Your task to perform on an android device: snooze an email in the gmail app Image 0: 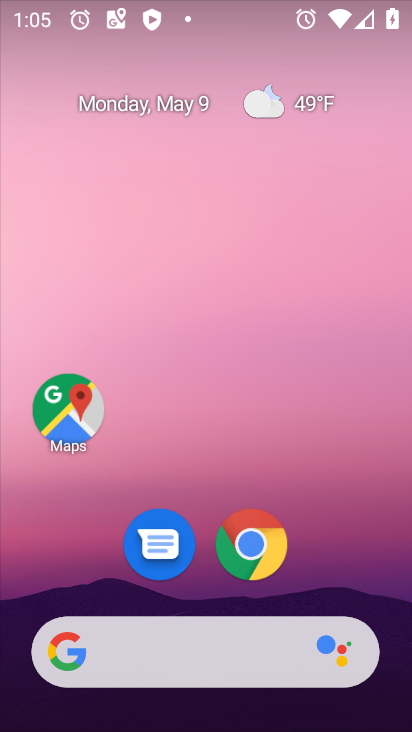
Step 0: drag from (208, 664) to (186, 251)
Your task to perform on an android device: snooze an email in the gmail app Image 1: 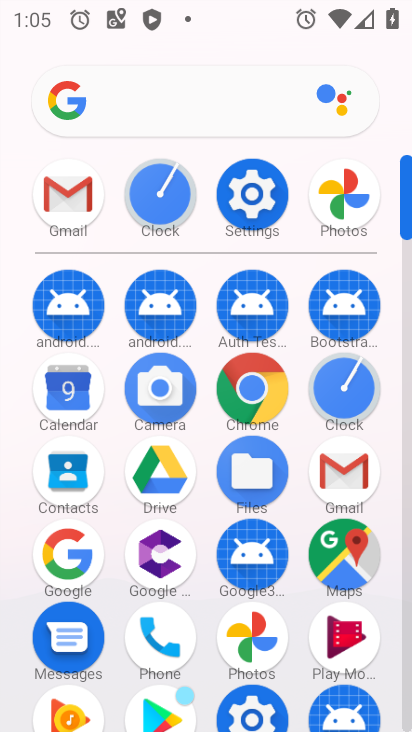
Step 1: click (68, 174)
Your task to perform on an android device: snooze an email in the gmail app Image 2: 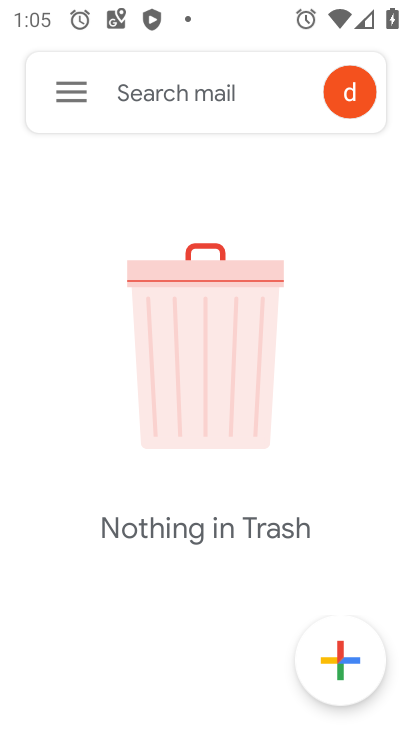
Step 2: click (77, 90)
Your task to perform on an android device: snooze an email in the gmail app Image 3: 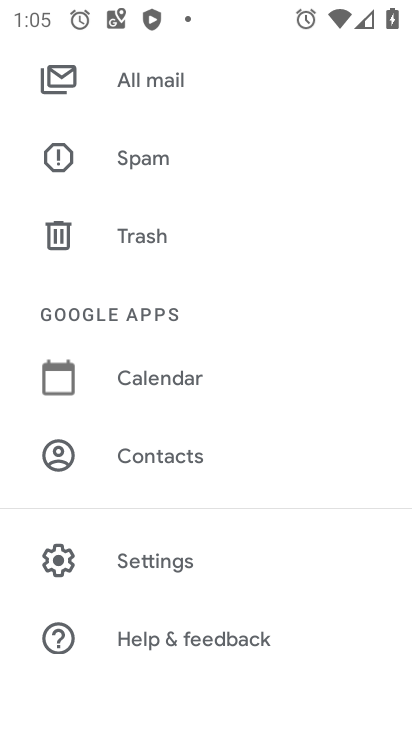
Step 3: click (116, 85)
Your task to perform on an android device: snooze an email in the gmail app Image 4: 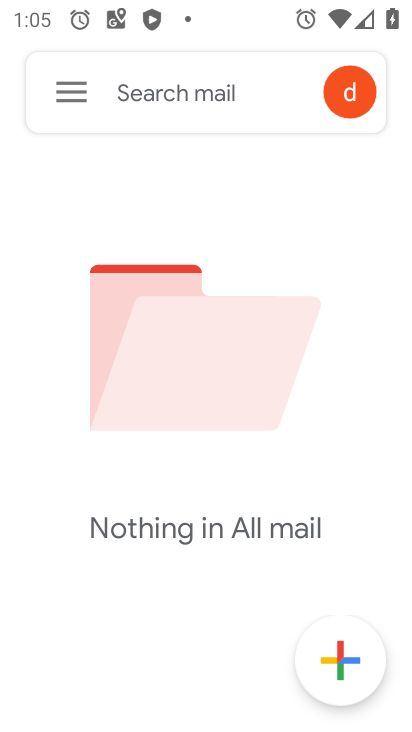
Step 4: task complete